Your task to perform on an android device: Open calendar and show me the second week of next month Image 0: 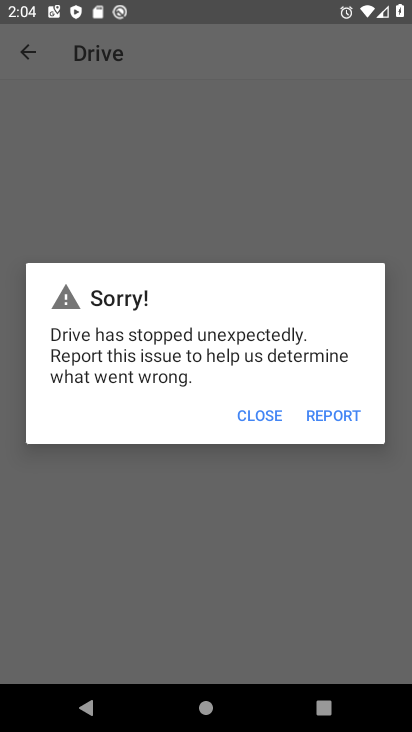
Step 0: press home button
Your task to perform on an android device: Open calendar and show me the second week of next month Image 1: 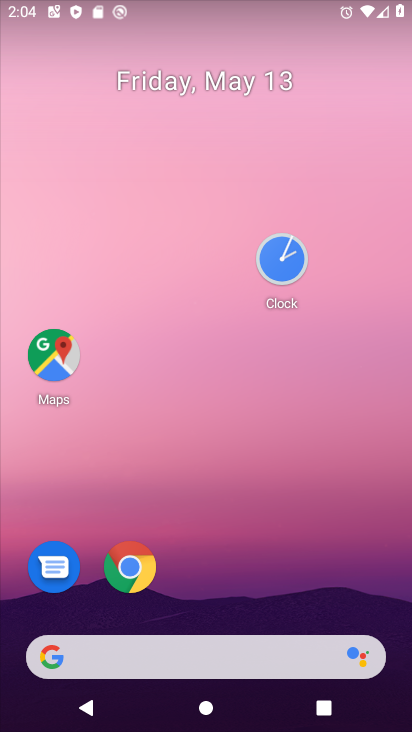
Step 1: drag from (254, 422) to (300, 133)
Your task to perform on an android device: Open calendar and show me the second week of next month Image 2: 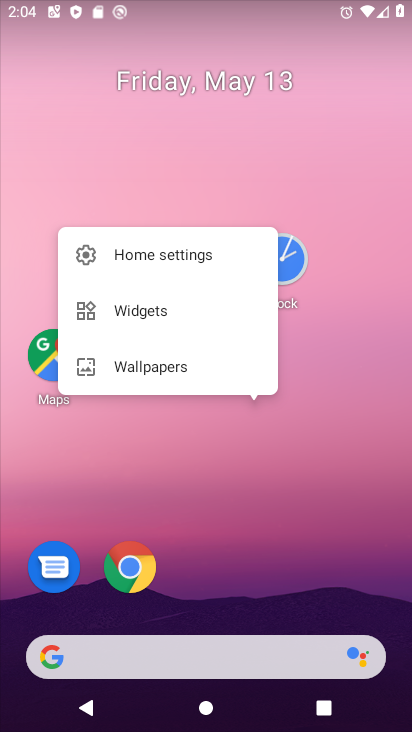
Step 2: click (333, 524)
Your task to perform on an android device: Open calendar and show me the second week of next month Image 3: 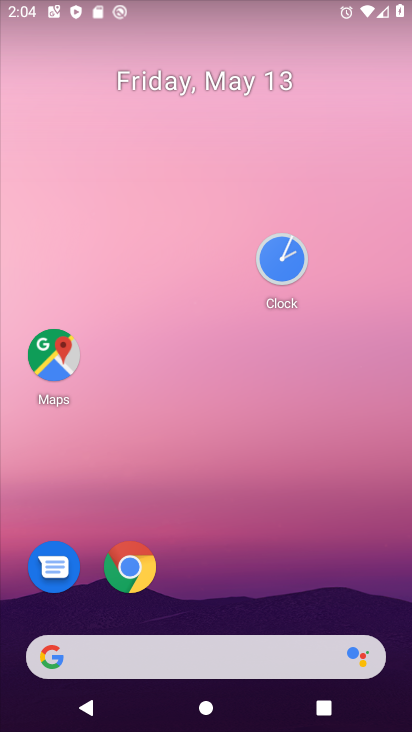
Step 3: drag from (287, 559) to (309, 14)
Your task to perform on an android device: Open calendar and show me the second week of next month Image 4: 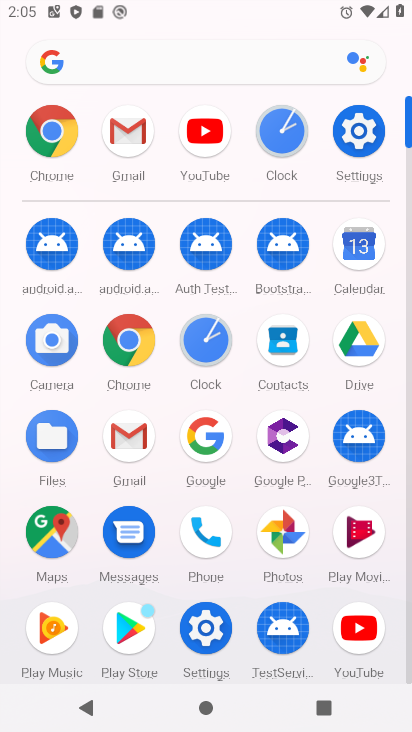
Step 4: click (354, 250)
Your task to perform on an android device: Open calendar and show me the second week of next month Image 5: 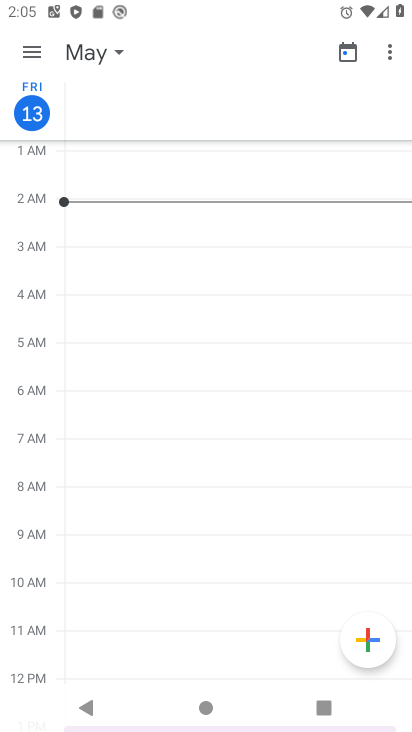
Step 5: click (83, 55)
Your task to perform on an android device: Open calendar and show me the second week of next month Image 6: 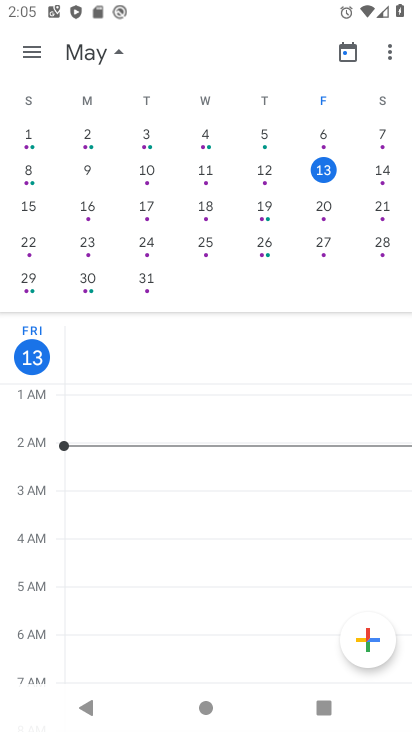
Step 6: drag from (361, 252) to (0, 265)
Your task to perform on an android device: Open calendar and show me the second week of next month Image 7: 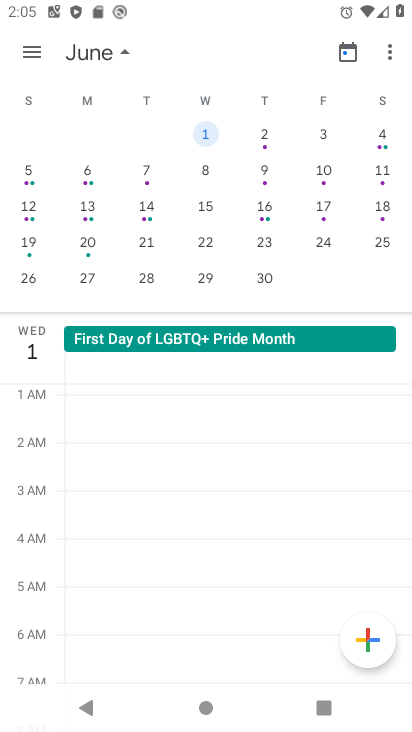
Step 7: click (166, 204)
Your task to perform on an android device: Open calendar and show me the second week of next month Image 8: 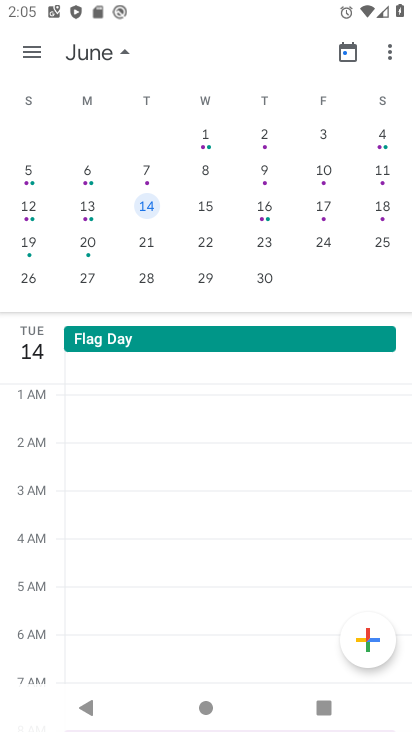
Step 8: task complete